Your task to perform on an android device: Open sound settings Image 0: 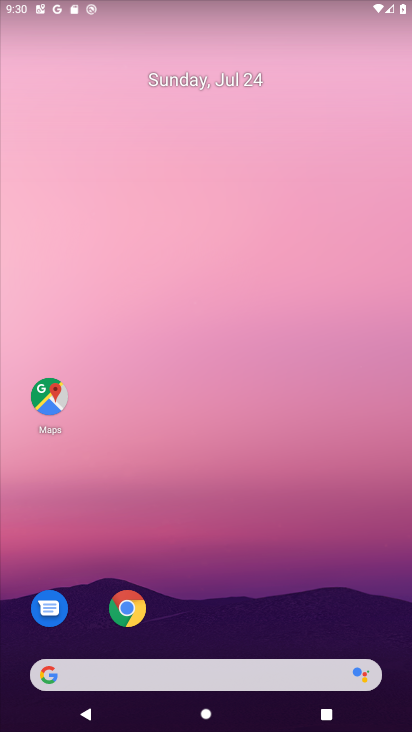
Step 0: drag from (233, 642) to (333, 1)
Your task to perform on an android device: Open sound settings Image 1: 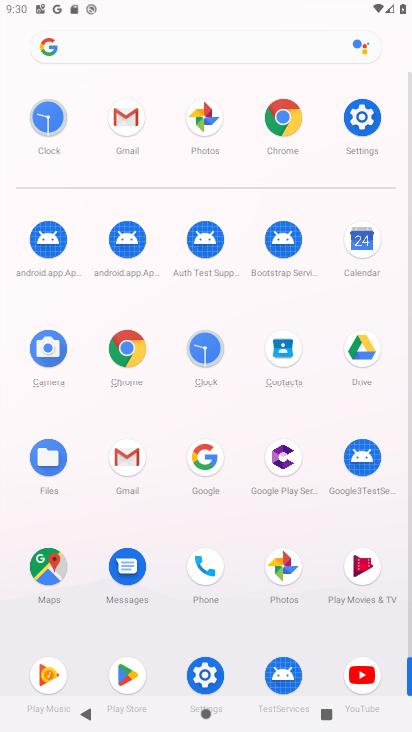
Step 1: click (391, 120)
Your task to perform on an android device: Open sound settings Image 2: 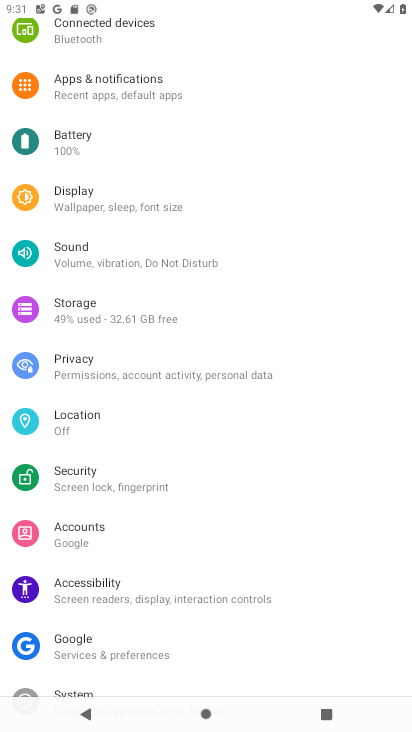
Step 2: click (57, 274)
Your task to perform on an android device: Open sound settings Image 3: 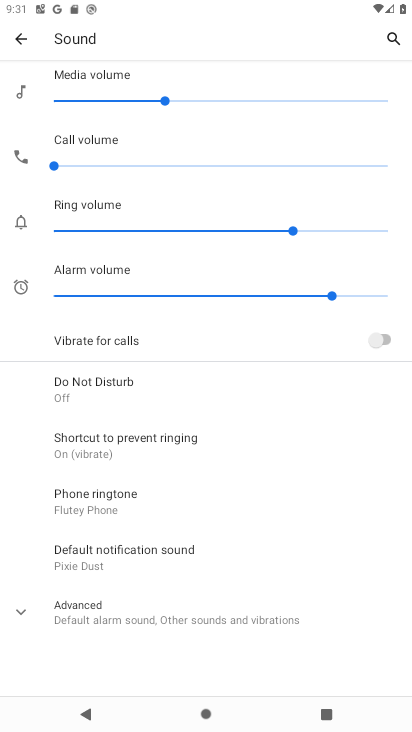
Step 3: task complete